Your task to perform on an android device: What is the capital of Norway? Image 0: 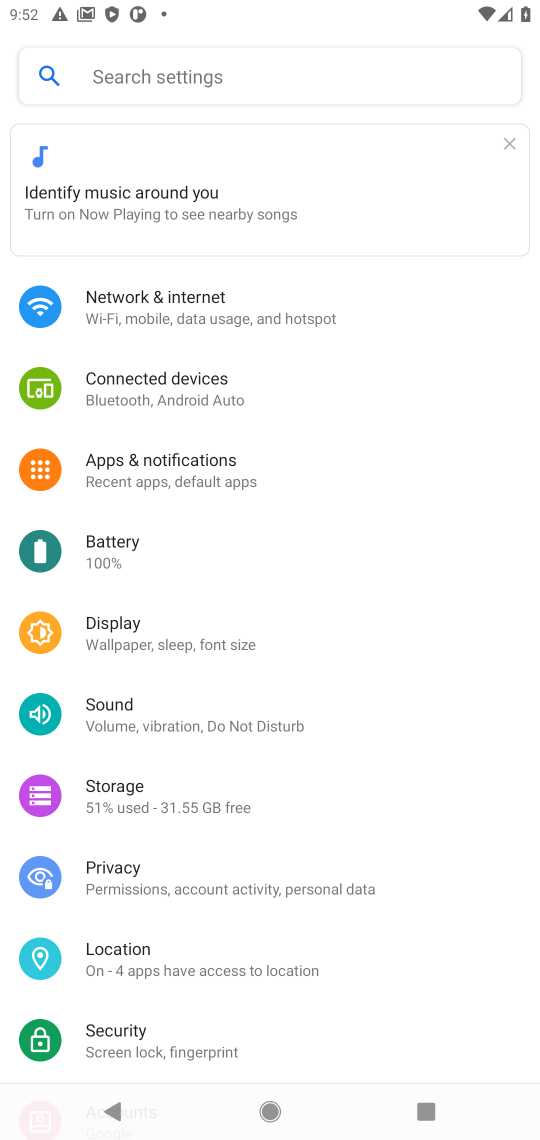
Step 0: press home button
Your task to perform on an android device: What is the capital of Norway? Image 1: 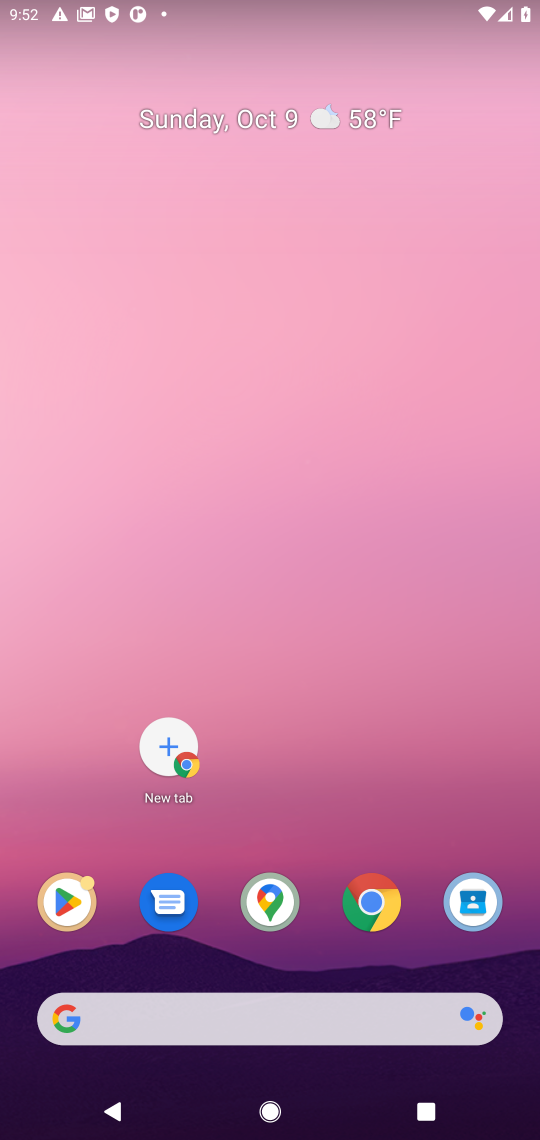
Step 1: click (373, 901)
Your task to perform on an android device: What is the capital of Norway? Image 2: 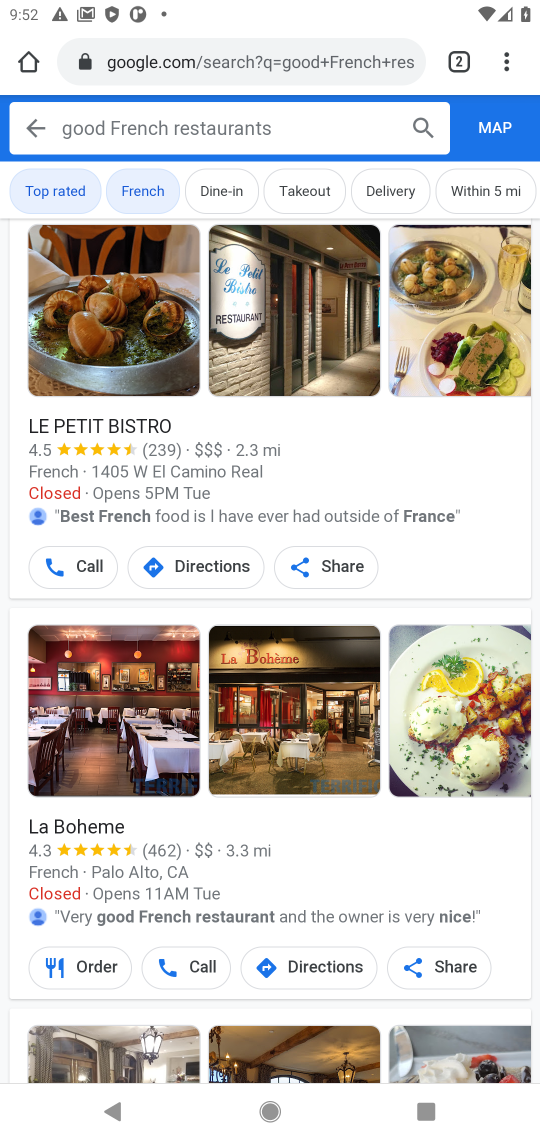
Step 2: click (303, 71)
Your task to perform on an android device: What is the capital of Norway? Image 3: 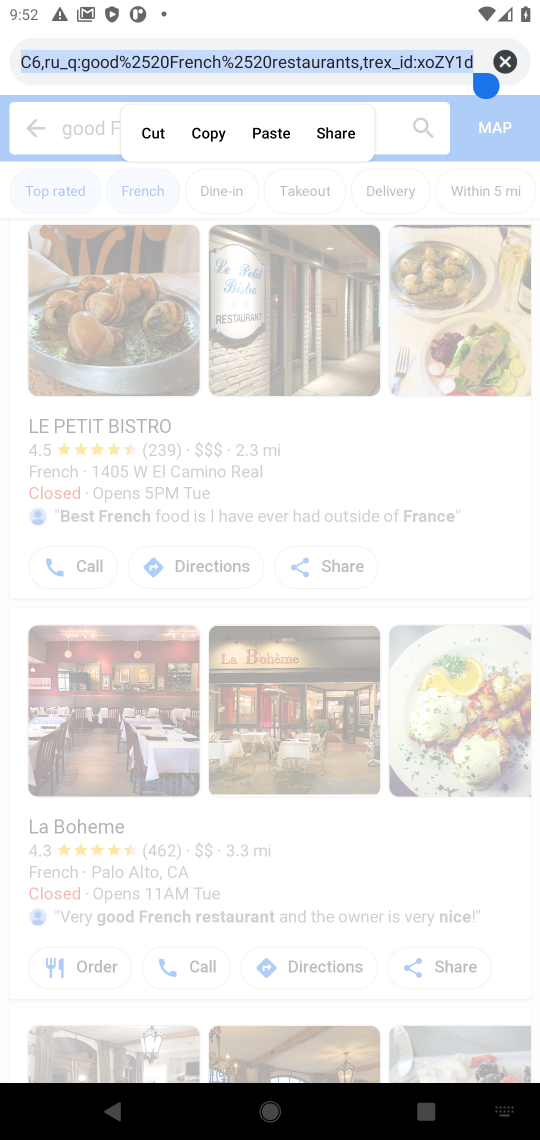
Step 3: type "capital of Norway"
Your task to perform on an android device: What is the capital of Norway? Image 4: 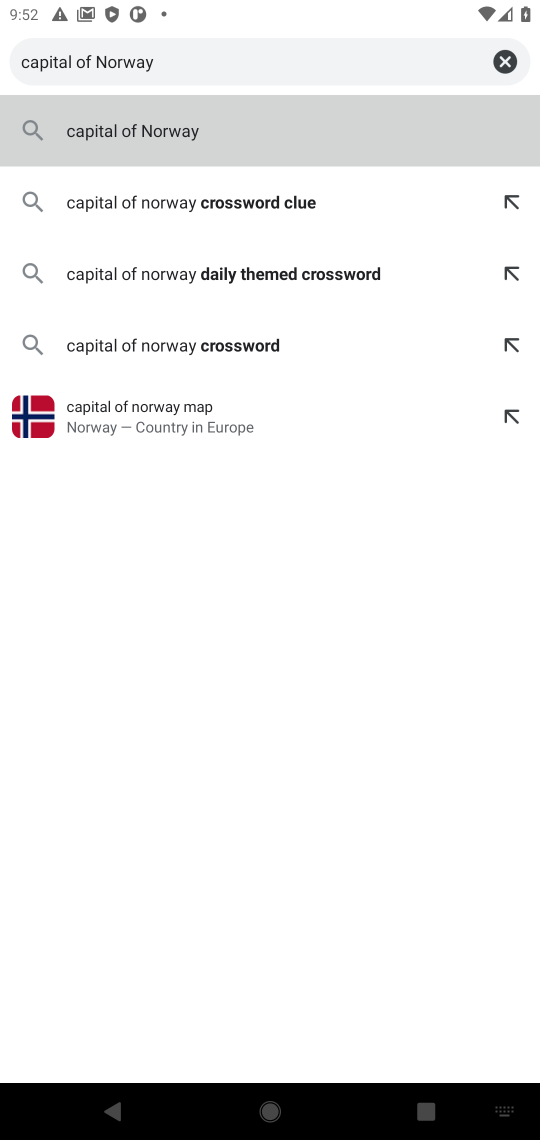
Step 4: click (171, 134)
Your task to perform on an android device: What is the capital of Norway? Image 5: 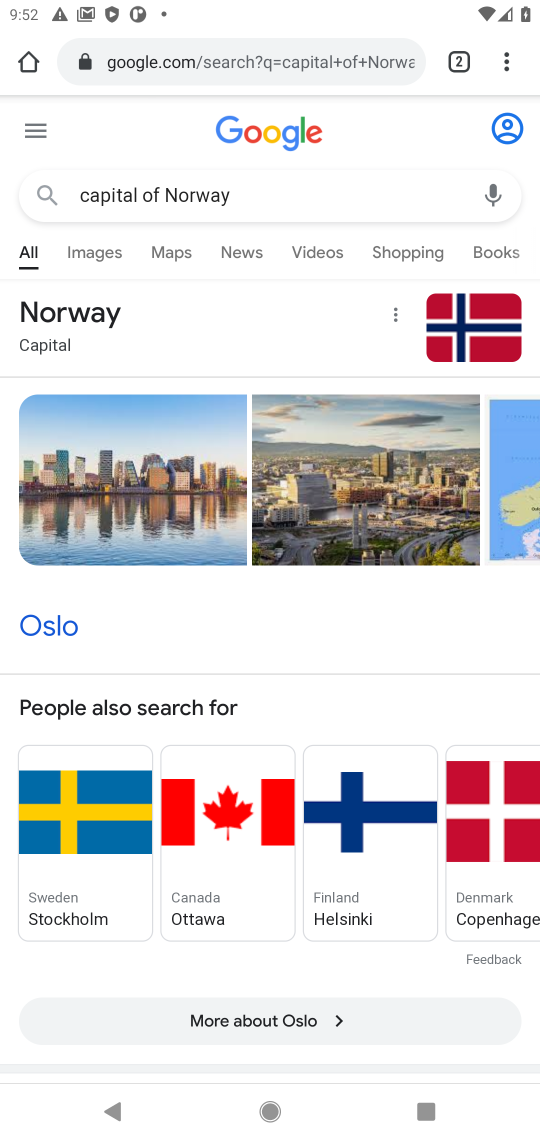
Step 5: task complete